Your task to perform on an android device: turn notification dots off Image 0: 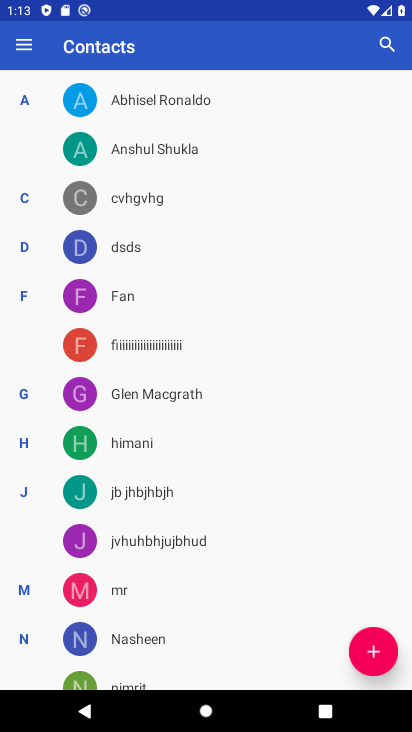
Step 0: press home button
Your task to perform on an android device: turn notification dots off Image 1: 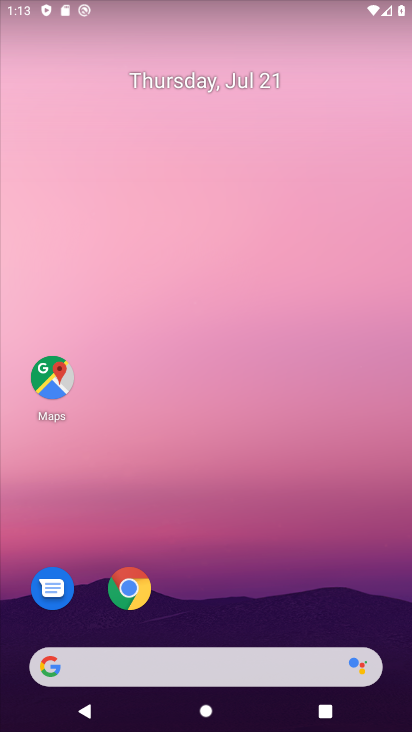
Step 1: drag from (218, 628) to (207, 44)
Your task to perform on an android device: turn notification dots off Image 2: 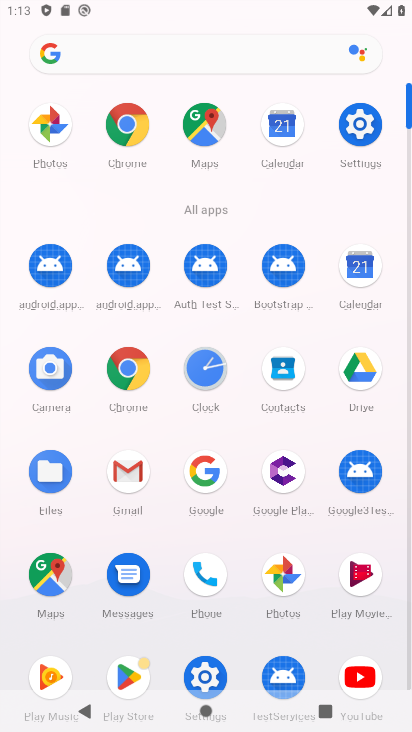
Step 2: click (363, 125)
Your task to perform on an android device: turn notification dots off Image 3: 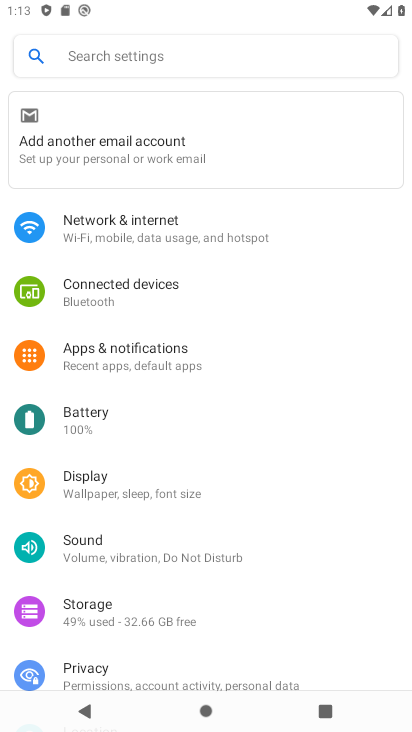
Step 3: click (141, 358)
Your task to perform on an android device: turn notification dots off Image 4: 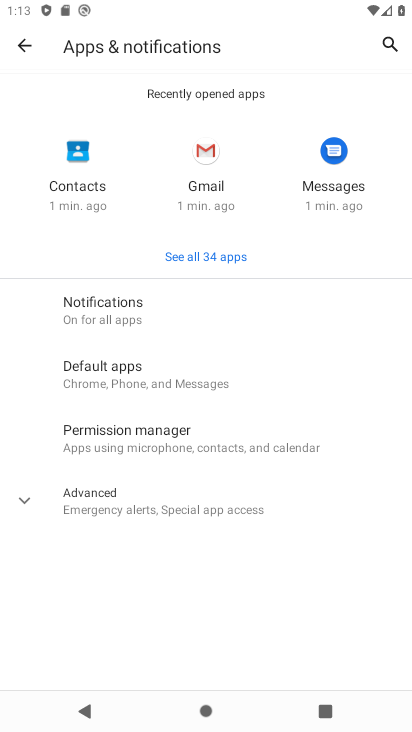
Step 4: click (91, 301)
Your task to perform on an android device: turn notification dots off Image 5: 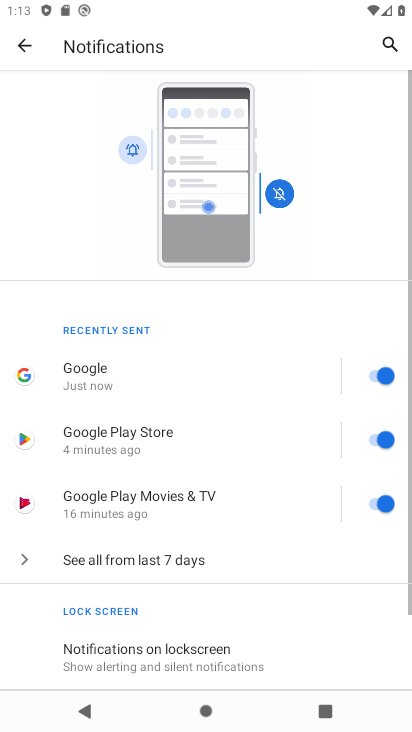
Step 5: drag from (209, 625) to (195, 102)
Your task to perform on an android device: turn notification dots off Image 6: 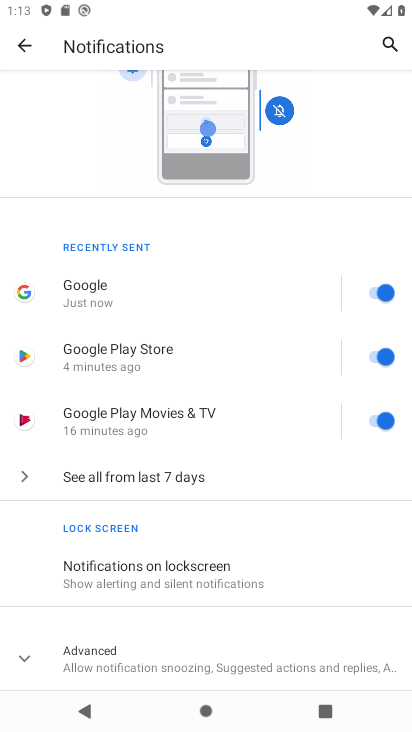
Step 6: drag from (235, 577) to (192, 268)
Your task to perform on an android device: turn notification dots off Image 7: 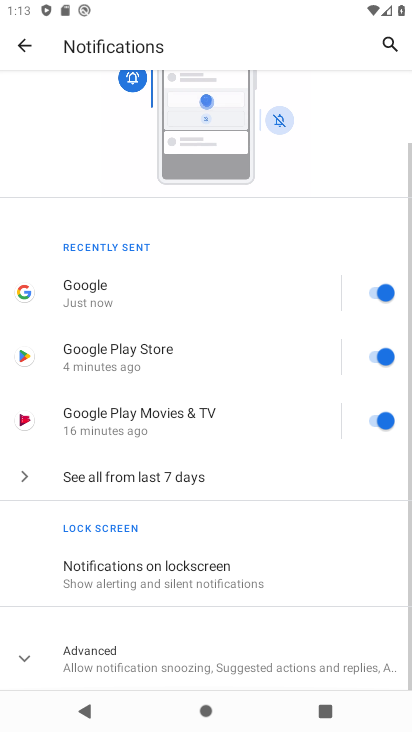
Step 7: click (160, 666)
Your task to perform on an android device: turn notification dots off Image 8: 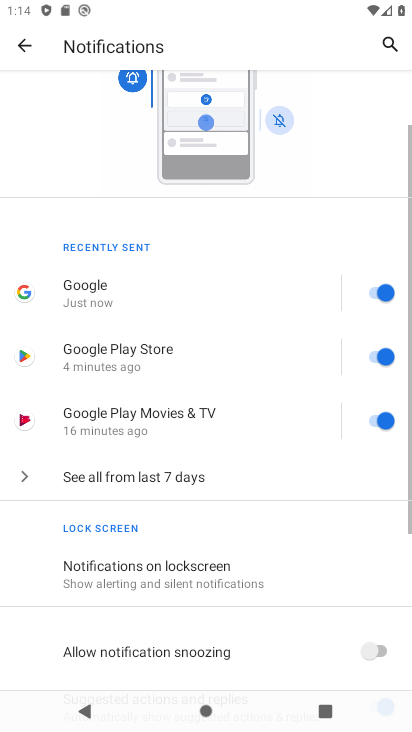
Step 8: drag from (159, 612) to (170, 166)
Your task to perform on an android device: turn notification dots off Image 9: 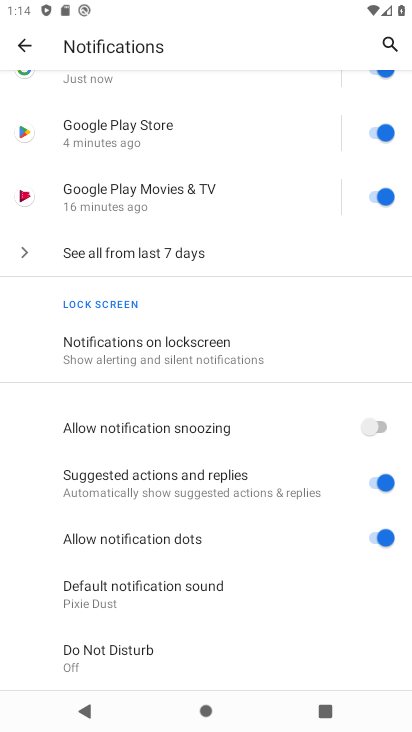
Step 9: click (385, 533)
Your task to perform on an android device: turn notification dots off Image 10: 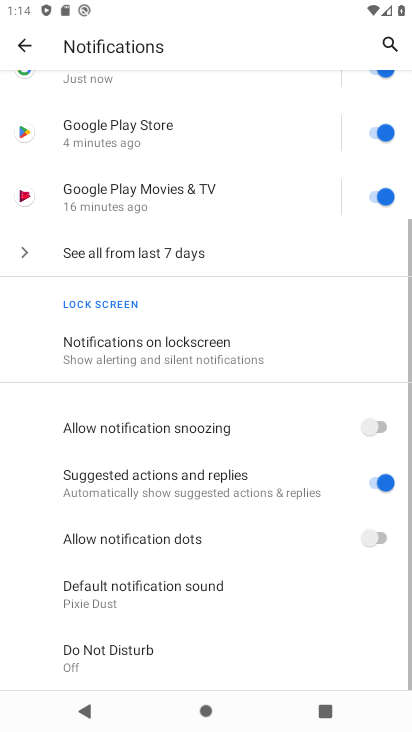
Step 10: task complete